Your task to perform on an android device: turn on showing notifications on the lock screen Image 0: 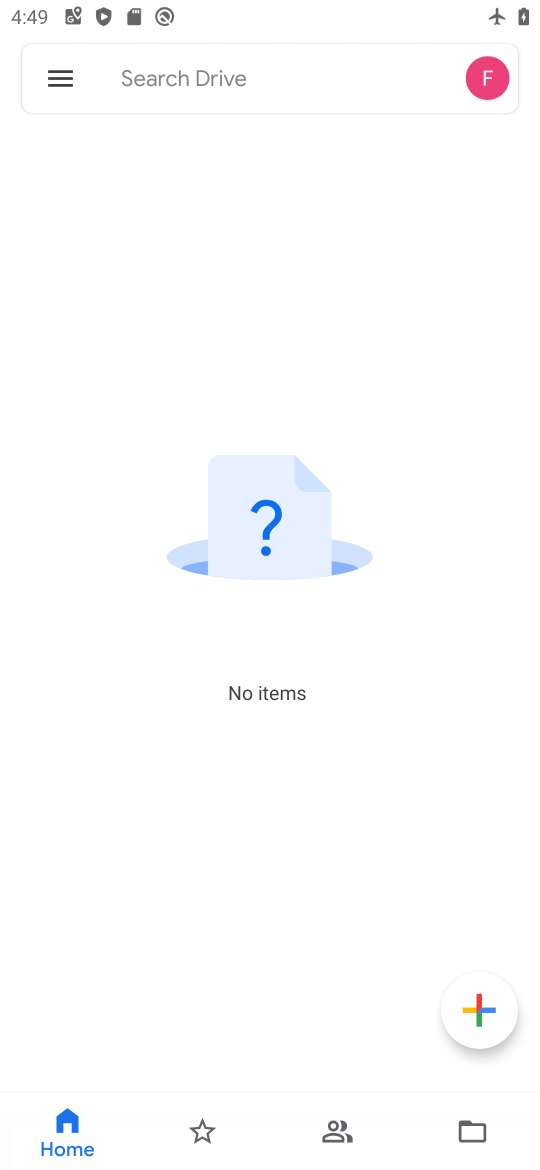
Step 0: press home button
Your task to perform on an android device: turn on showing notifications on the lock screen Image 1: 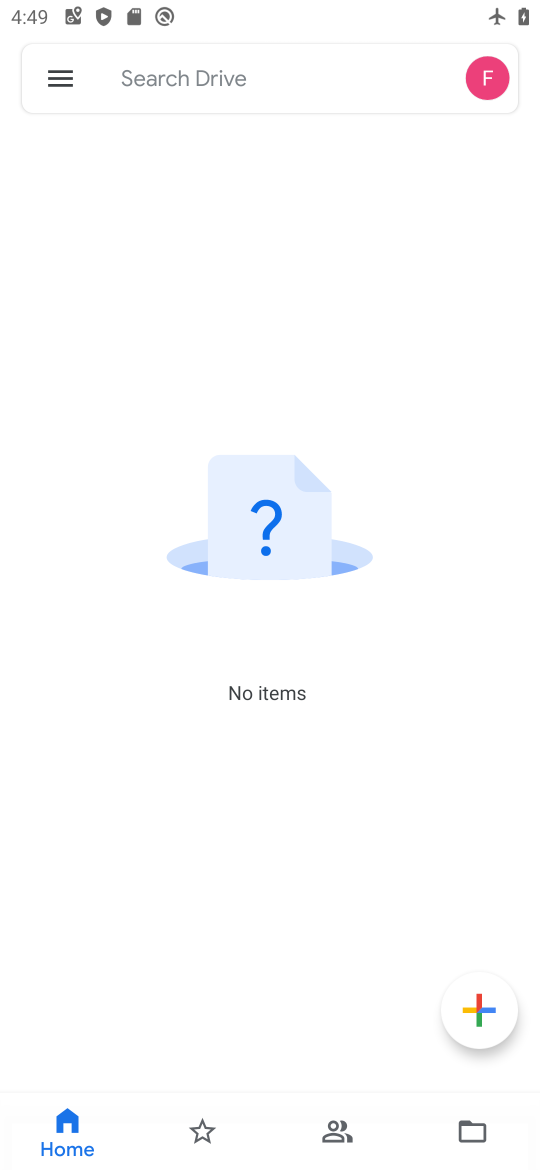
Step 1: press home button
Your task to perform on an android device: turn on showing notifications on the lock screen Image 2: 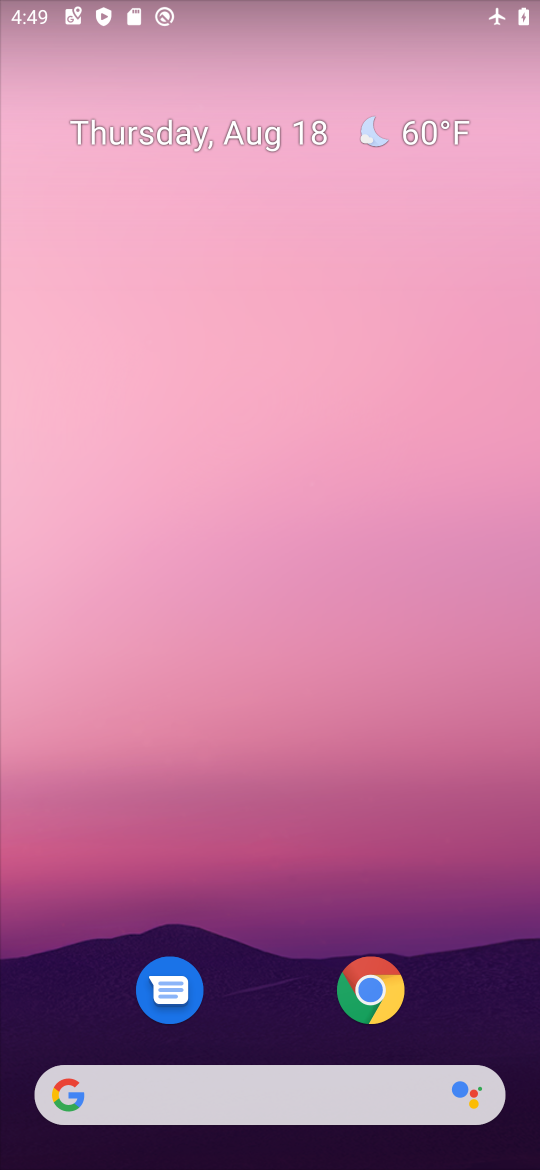
Step 2: drag from (298, 946) to (278, 55)
Your task to perform on an android device: turn on showing notifications on the lock screen Image 3: 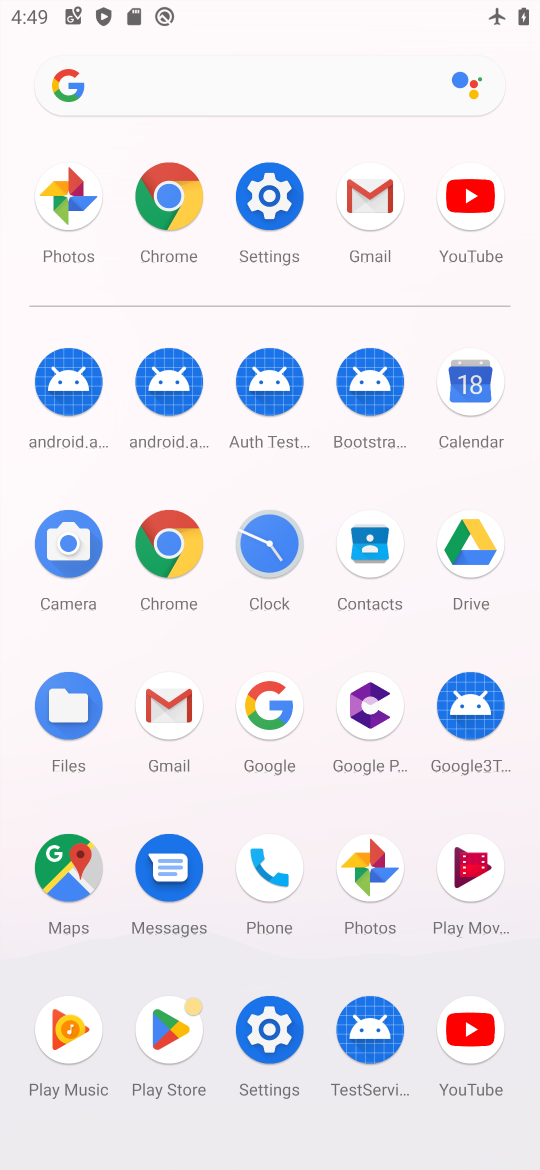
Step 3: click (269, 999)
Your task to perform on an android device: turn on showing notifications on the lock screen Image 4: 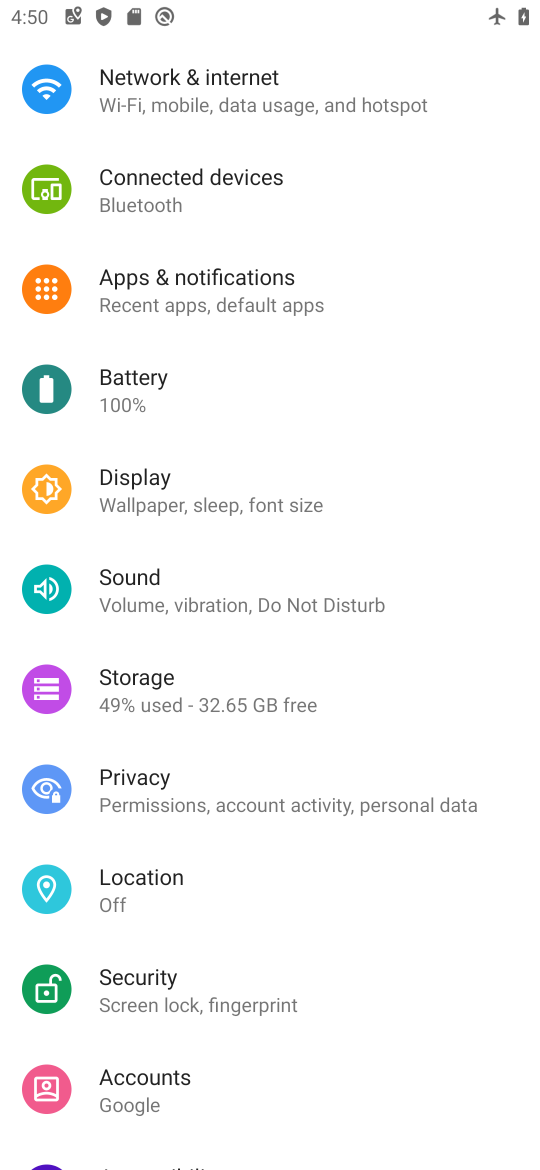
Step 4: click (174, 284)
Your task to perform on an android device: turn on showing notifications on the lock screen Image 5: 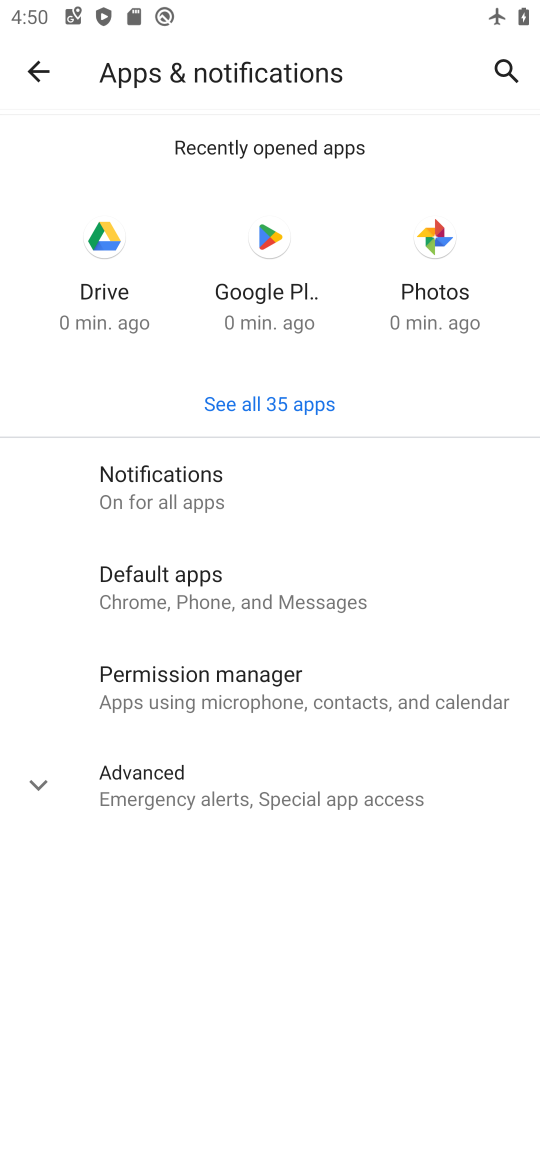
Step 5: click (143, 472)
Your task to perform on an android device: turn on showing notifications on the lock screen Image 6: 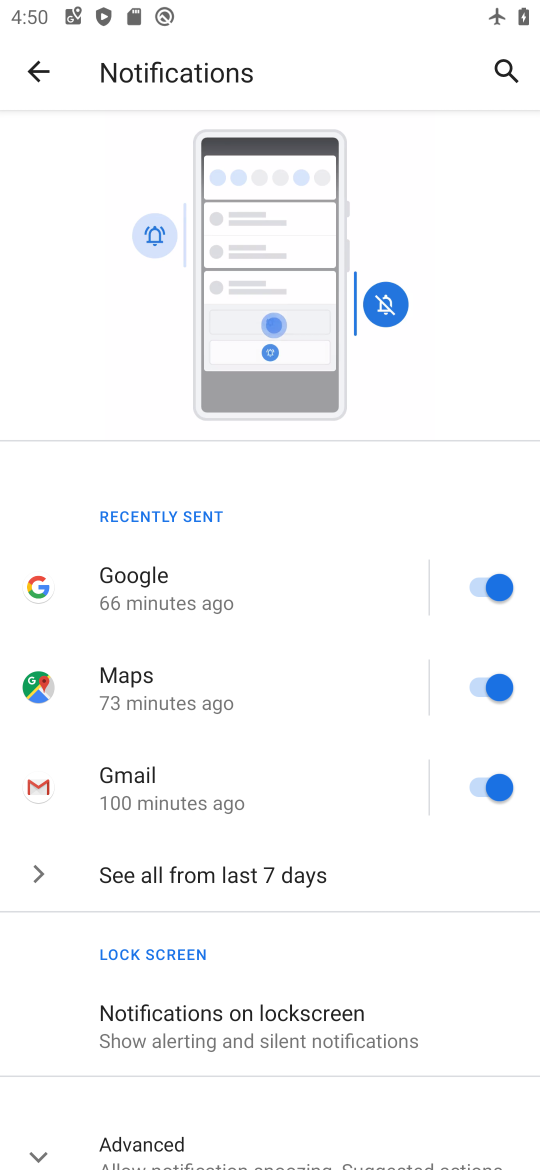
Step 6: drag from (274, 817) to (419, 156)
Your task to perform on an android device: turn on showing notifications on the lock screen Image 7: 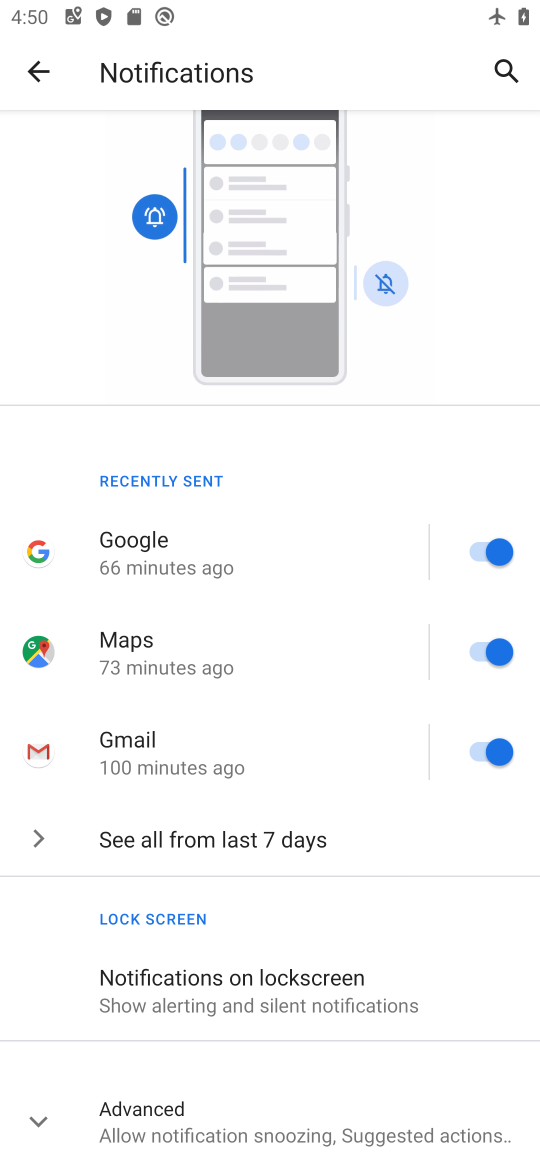
Step 7: click (164, 970)
Your task to perform on an android device: turn on showing notifications on the lock screen Image 8: 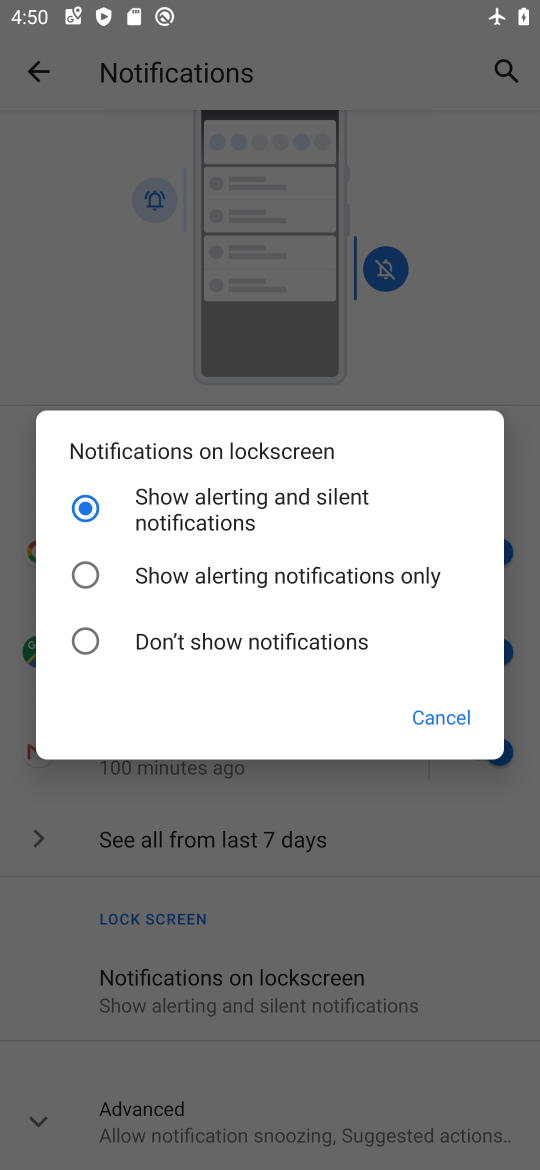
Step 8: task complete